Your task to perform on an android device: Open battery settings Image 0: 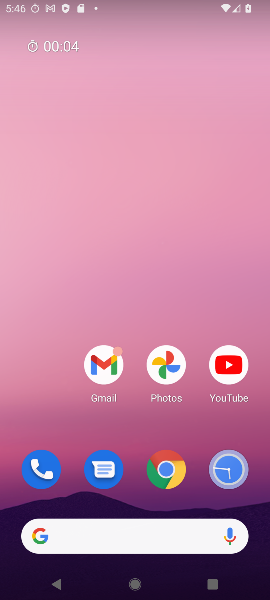
Step 0: press home button
Your task to perform on an android device: Open battery settings Image 1: 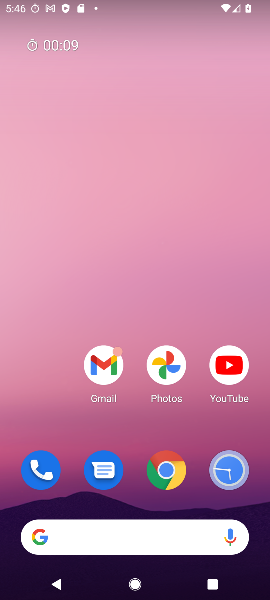
Step 1: drag from (75, 436) to (70, 155)
Your task to perform on an android device: Open battery settings Image 2: 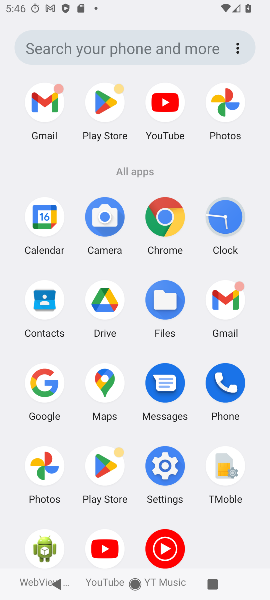
Step 2: click (171, 458)
Your task to perform on an android device: Open battery settings Image 3: 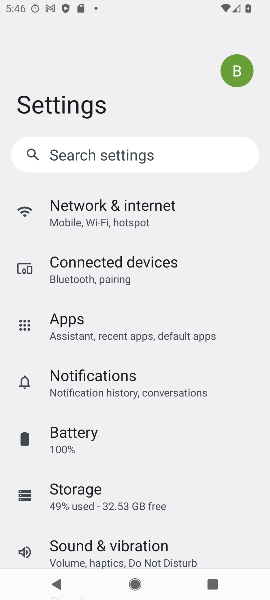
Step 3: click (58, 444)
Your task to perform on an android device: Open battery settings Image 4: 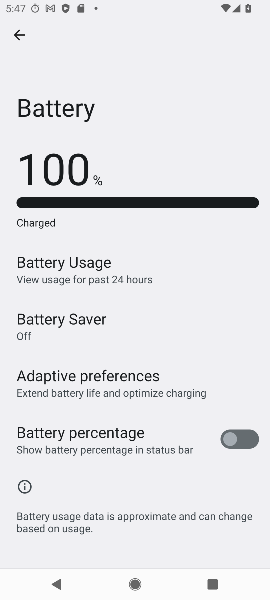
Step 4: task complete